Your task to perform on an android device: Go to location settings Image 0: 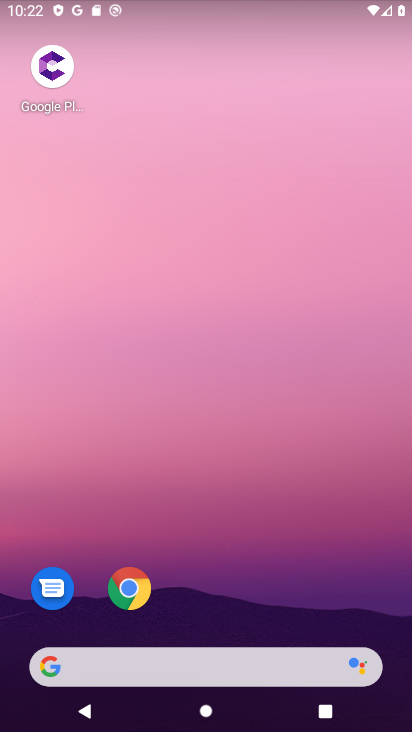
Step 0: drag from (348, 620) to (312, 83)
Your task to perform on an android device: Go to location settings Image 1: 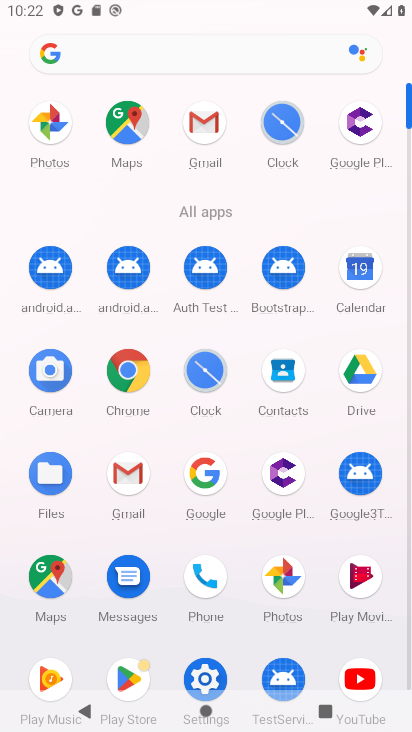
Step 1: click (204, 676)
Your task to perform on an android device: Go to location settings Image 2: 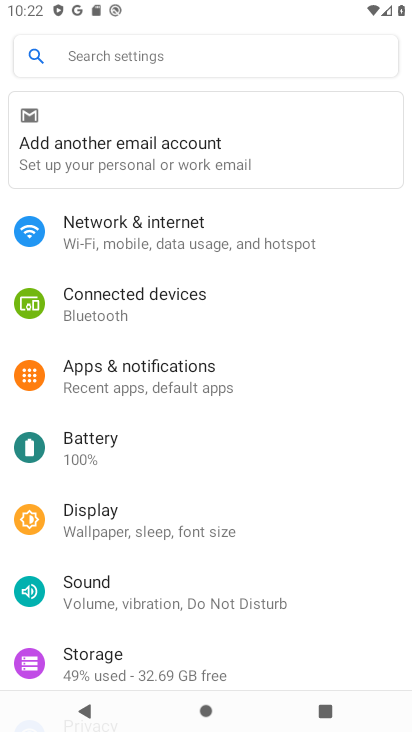
Step 2: drag from (296, 625) to (311, 214)
Your task to perform on an android device: Go to location settings Image 3: 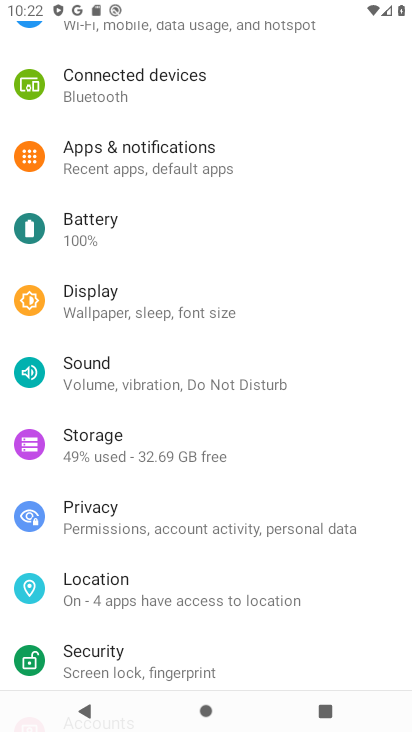
Step 3: click (98, 578)
Your task to perform on an android device: Go to location settings Image 4: 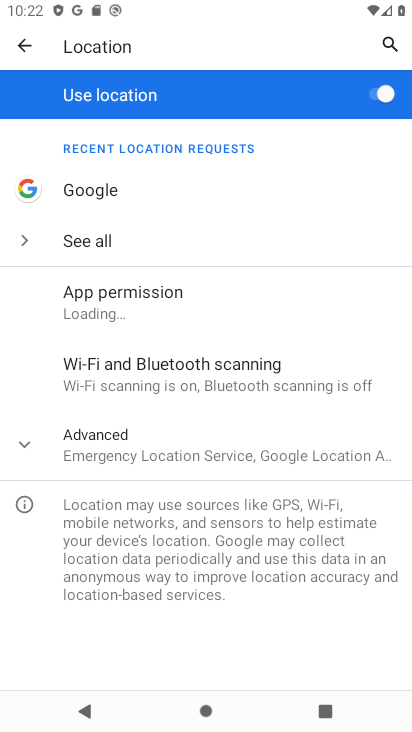
Step 4: click (31, 441)
Your task to perform on an android device: Go to location settings Image 5: 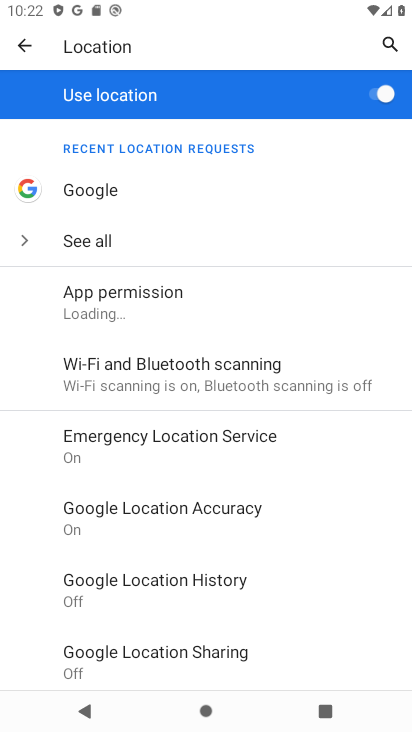
Step 5: task complete